Your task to perform on an android device: Search for Mexican restaurants on Maps Image 0: 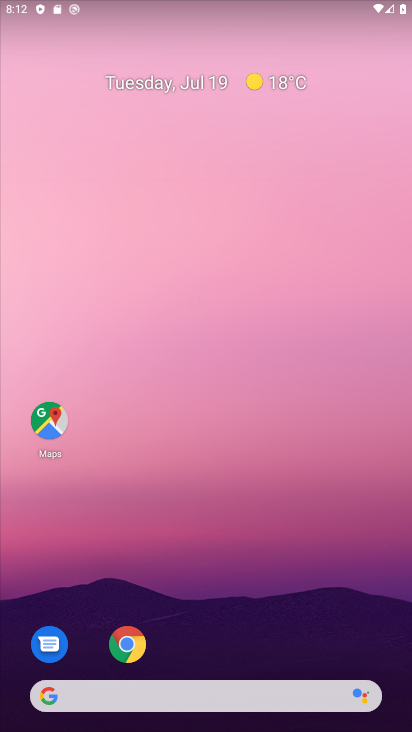
Step 0: drag from (188, 718) to (151, 210)
Your task to perform on an android device: Search for Mexican restaurants on Maps Image 1: 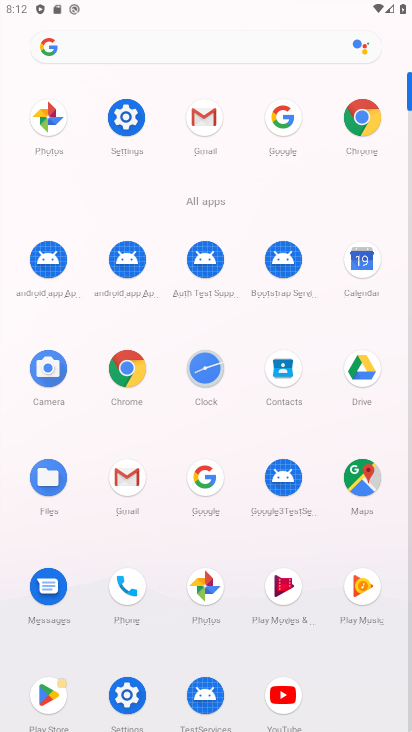
Step 1: click (358, 485)
Your task to perform on an android device: Search for Mexican restaurants on Maps Image 2: 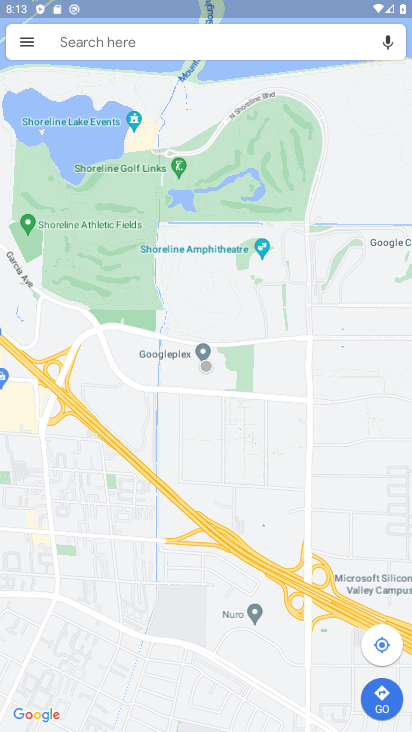
Step 2: click (146, 42)
Your task to perform on an android device: Search for Mexican restaurants on Maps Image 3: 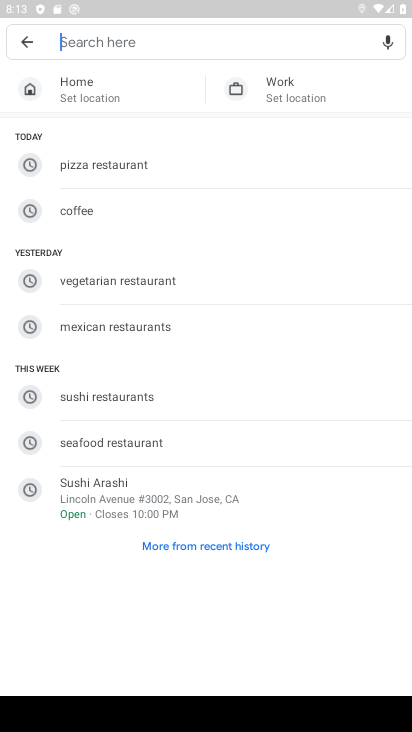
Step 3: type "Mexican restaurants"
Your task to perform on an android device: Search for Mexican restaurants on Maps Image 4: 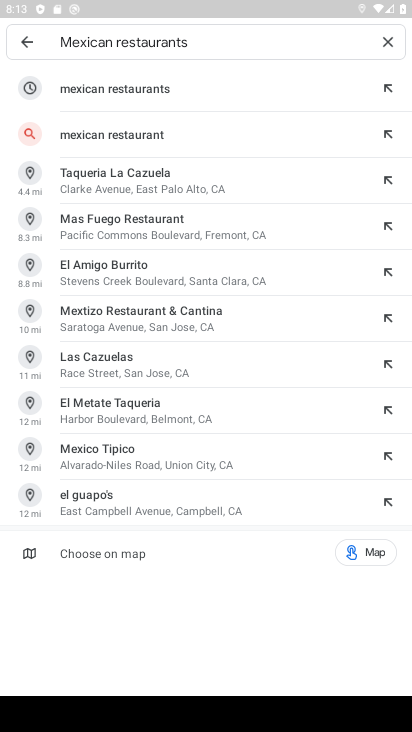
Step 4: click (85, 87)
Your task to perform on an android device: Search for Mexican restaurants on Maps Image 5: 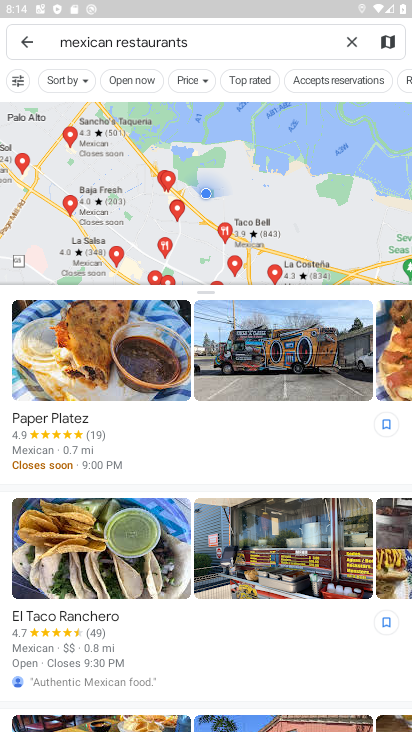
Step 5: task complete